Your task to perform on an android device: delete browsing data in the chrome app Image 0: 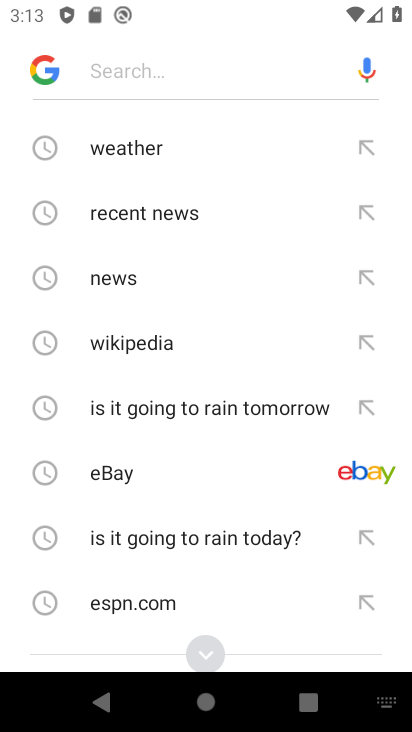
Step 0: press home button
Your task to perform on an android device: delete browsing data in the chrome app Image 1: 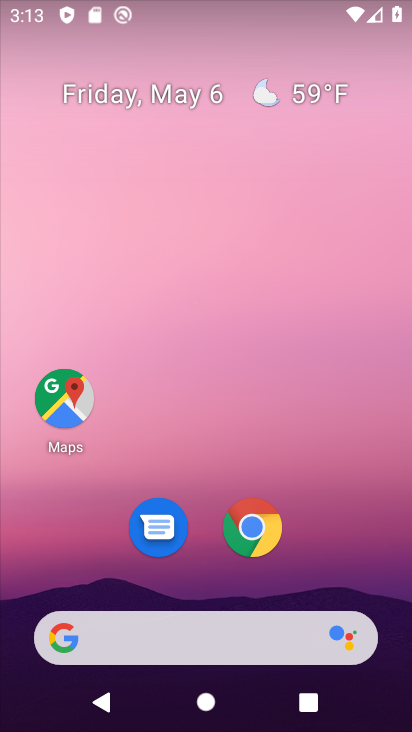
Step 1: drag from (318, 525) to (324, 22)
Your task to perform on an android device: delete browsing data in the chrome app Image 2: 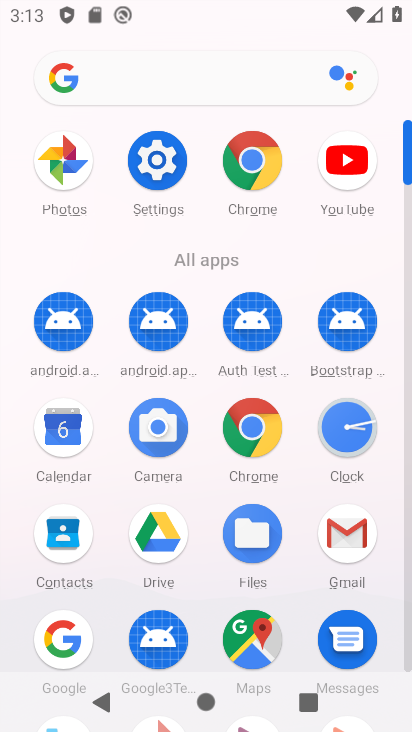
Step 2: click (261, 159)
Your task to perform on an android device: delete browsing data in the chrome app Image 3: 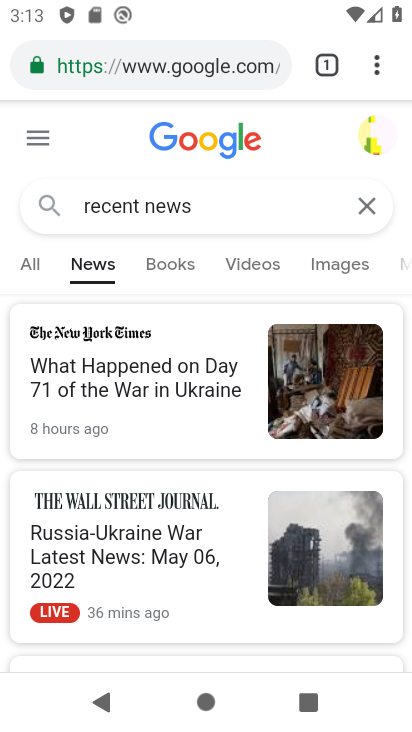
Step 3: click (380, 59)
Your task to perform on an android device: delete browsing data in the chrome app Image 4: 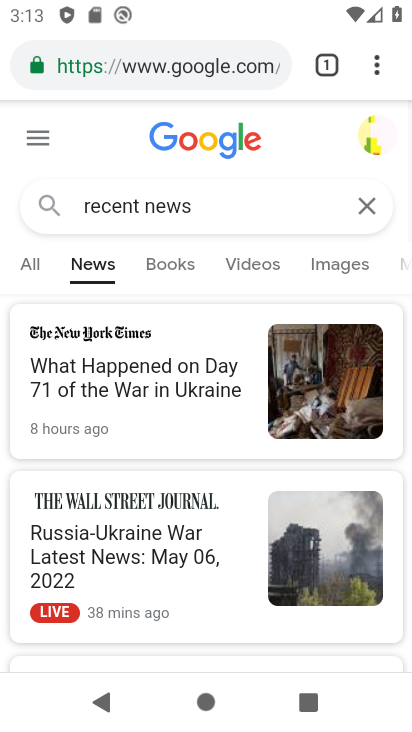
Step 4: drag from (380, 61) to (161, 209)
Your task to perform on an android device: delete browsing data in the chrome app Image 5: 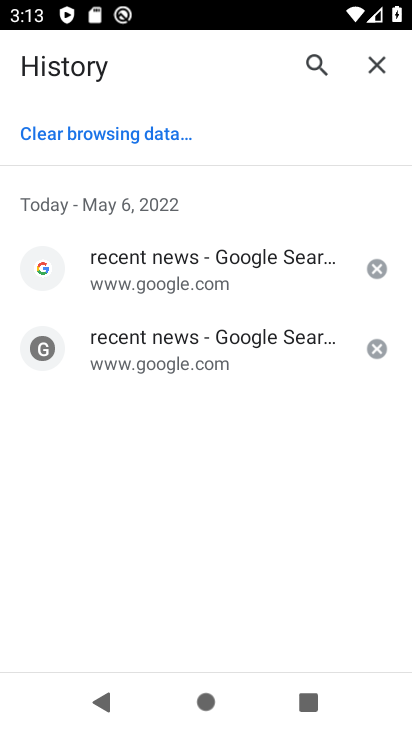
Step 5: click (139, 138)
Your task to perform on an android device: delete browsing data in the chrome app Image 6: 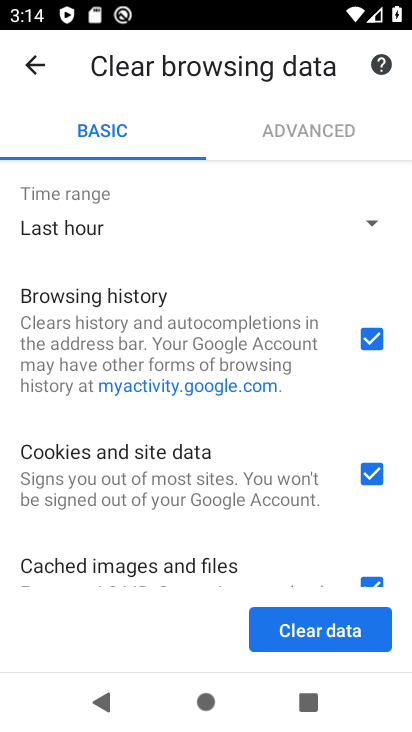
Step 6: click (172, 232)
Your task to perform on an android device: delete browsing data in the chrome app Image 7: 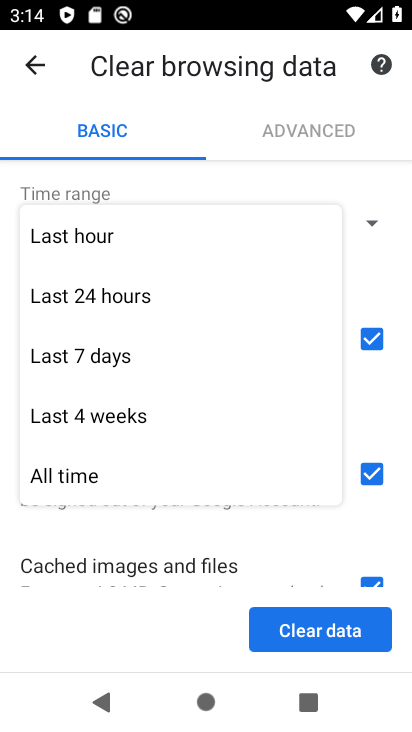
Step 7: click (132, 477)
Your task to perform on an android device: delete browsing data in the chrome app Image 8: 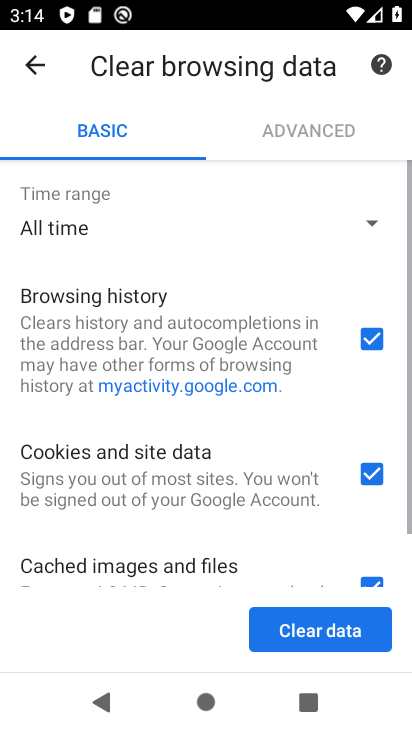
Step 8: click (339, 624)
Your task to perform on an android device: delete browsing data in the chrome app Image 9: 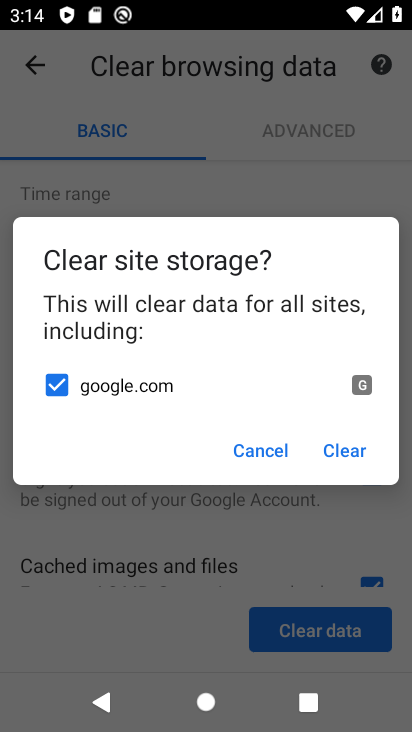
Step 9: click (342, 453)
Your task to perform on an android device: delete browsing data in the chrome app Image 10: 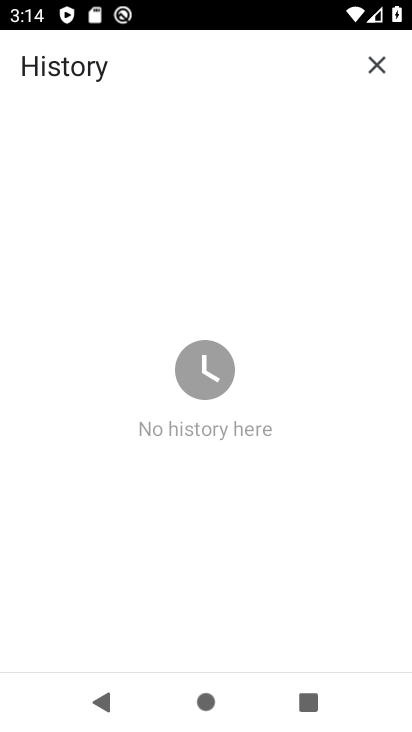
Step 10: task complete